Your task to perform on an android device: install app "Paramount+ | Peak Streaming" Image 0: 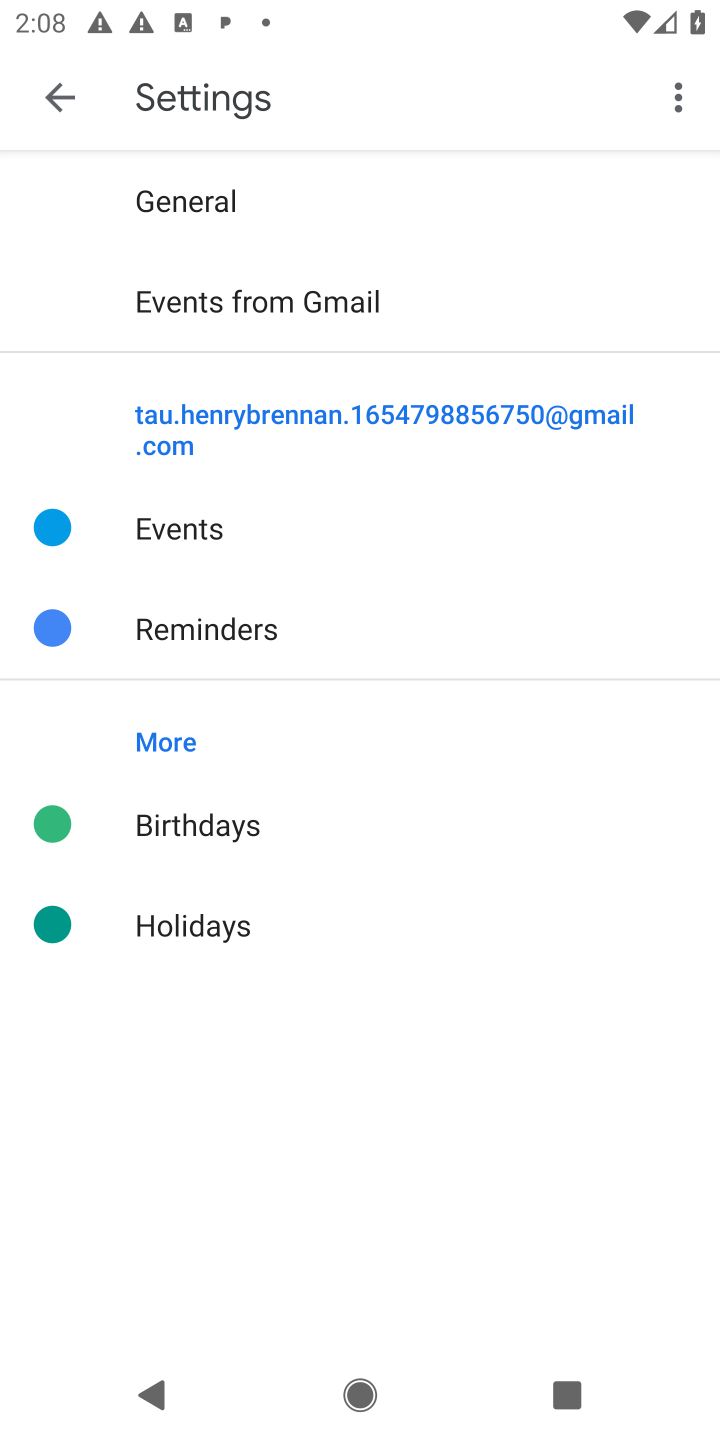
Step 0: press home button
Your task to perform on an android device: install app "Paramount+ | Peak Streaming" Image 1: 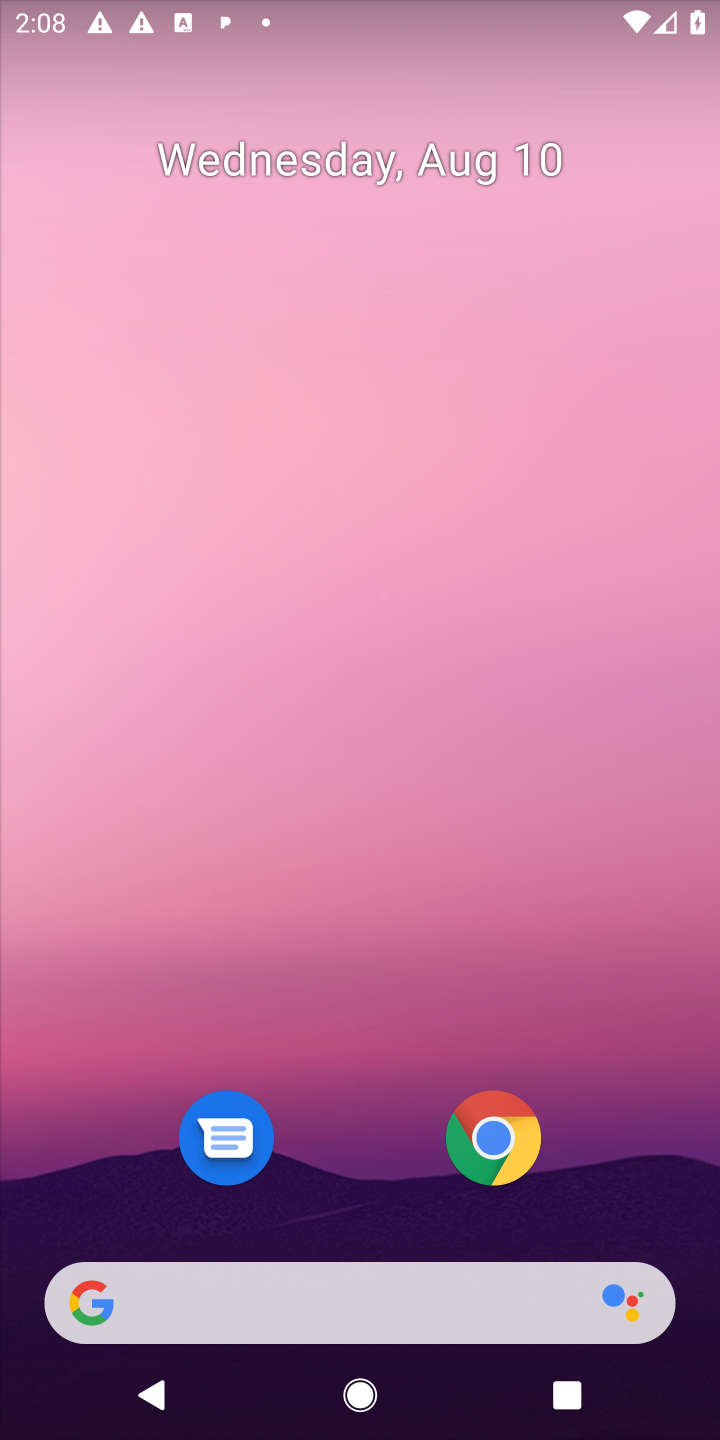
Step 1: drag from (601, 756) to (630, 112)
Your task to perform on an android device: install app "Paramount+ | Peak Streaming" Image 2: 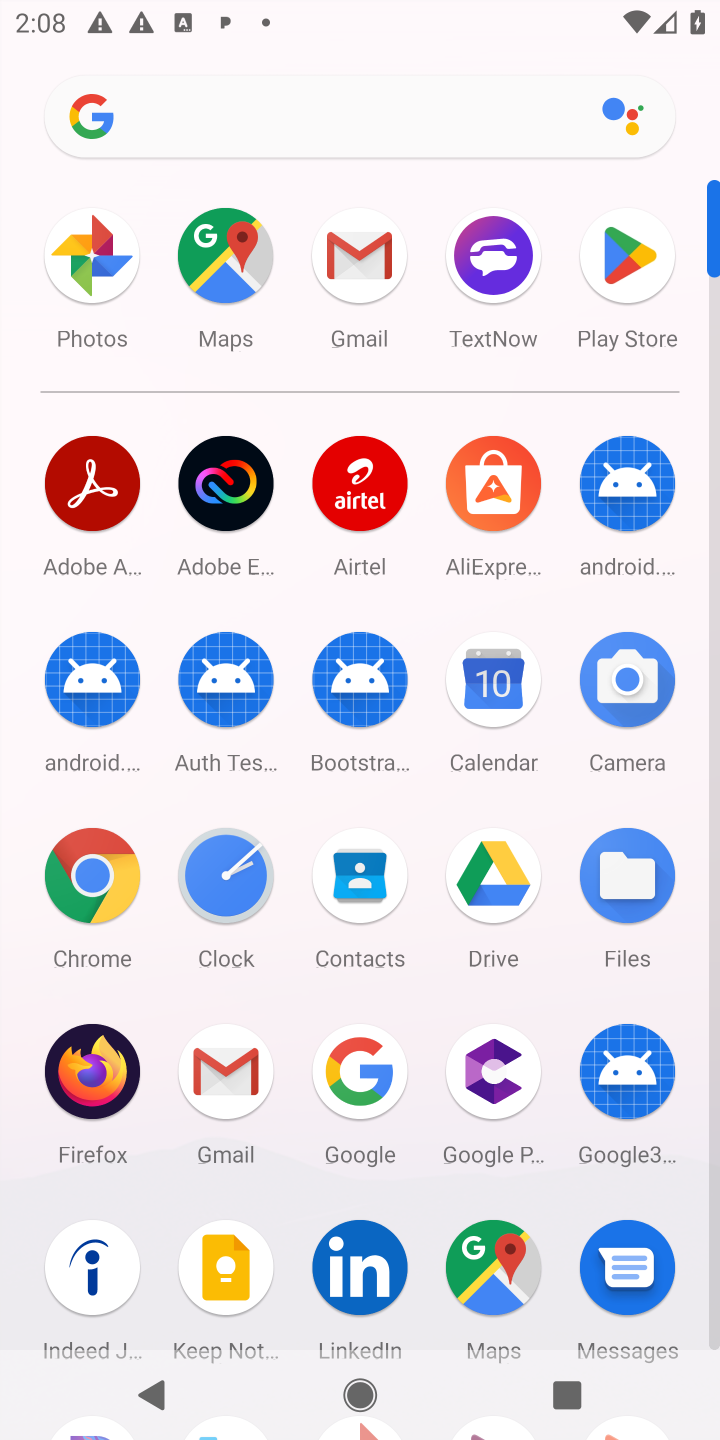
Step 2: click (616, 258)
Your task to perform on an android device: install app "Paramount+ | Peak Streaming" Image 3: 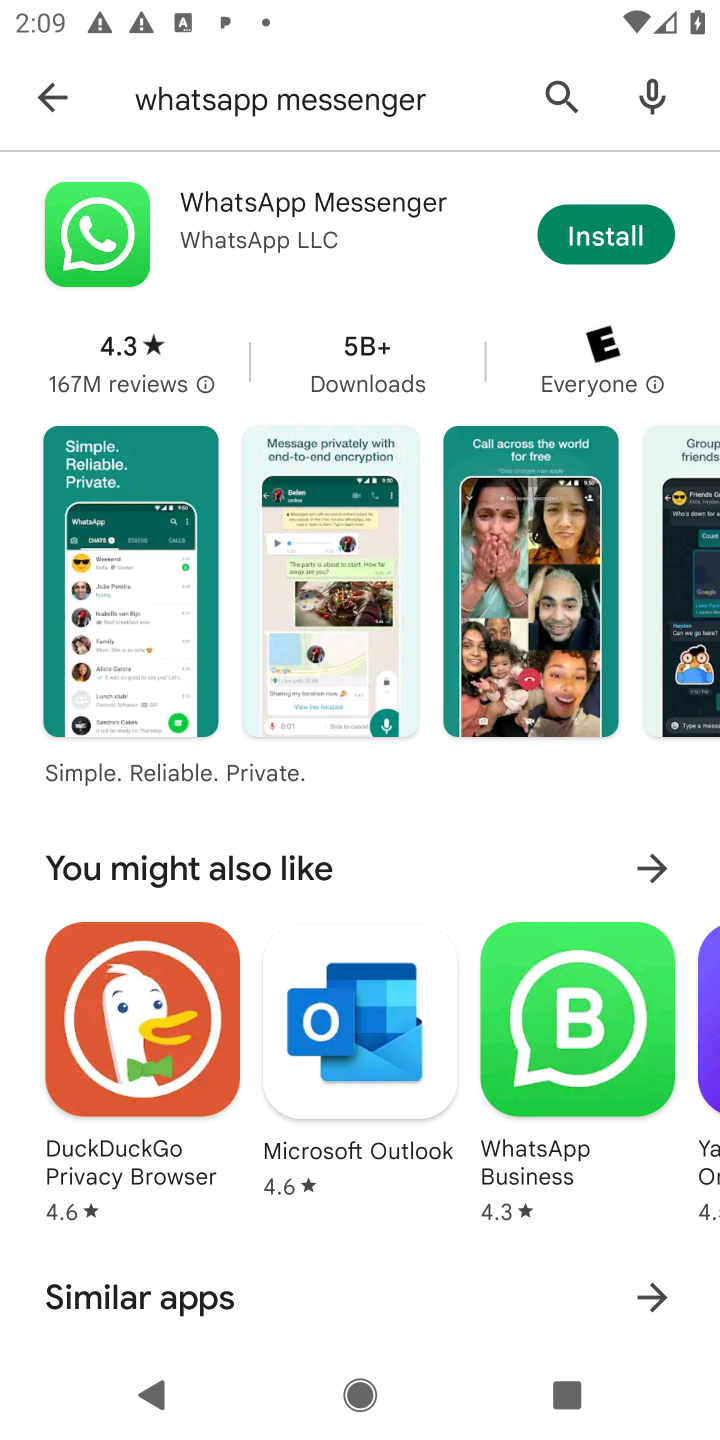
Step 3: click (559, 89)
Your task to perform on an android device: install app "Paramount+ | Peak Streaming" Image 4: 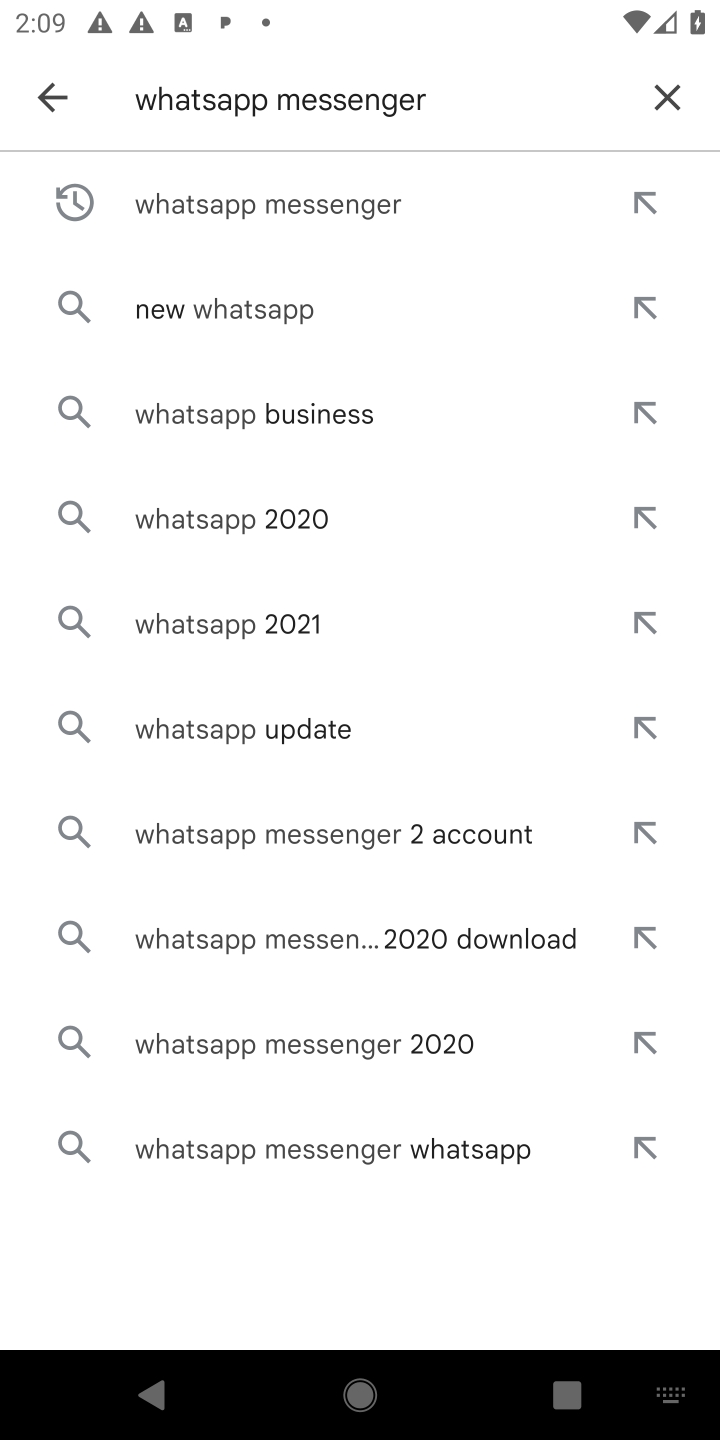
Step 4: click (669, 90)
Your task to perform on an android device: install app "Paramount+ | Peak Streaming" Image 5: 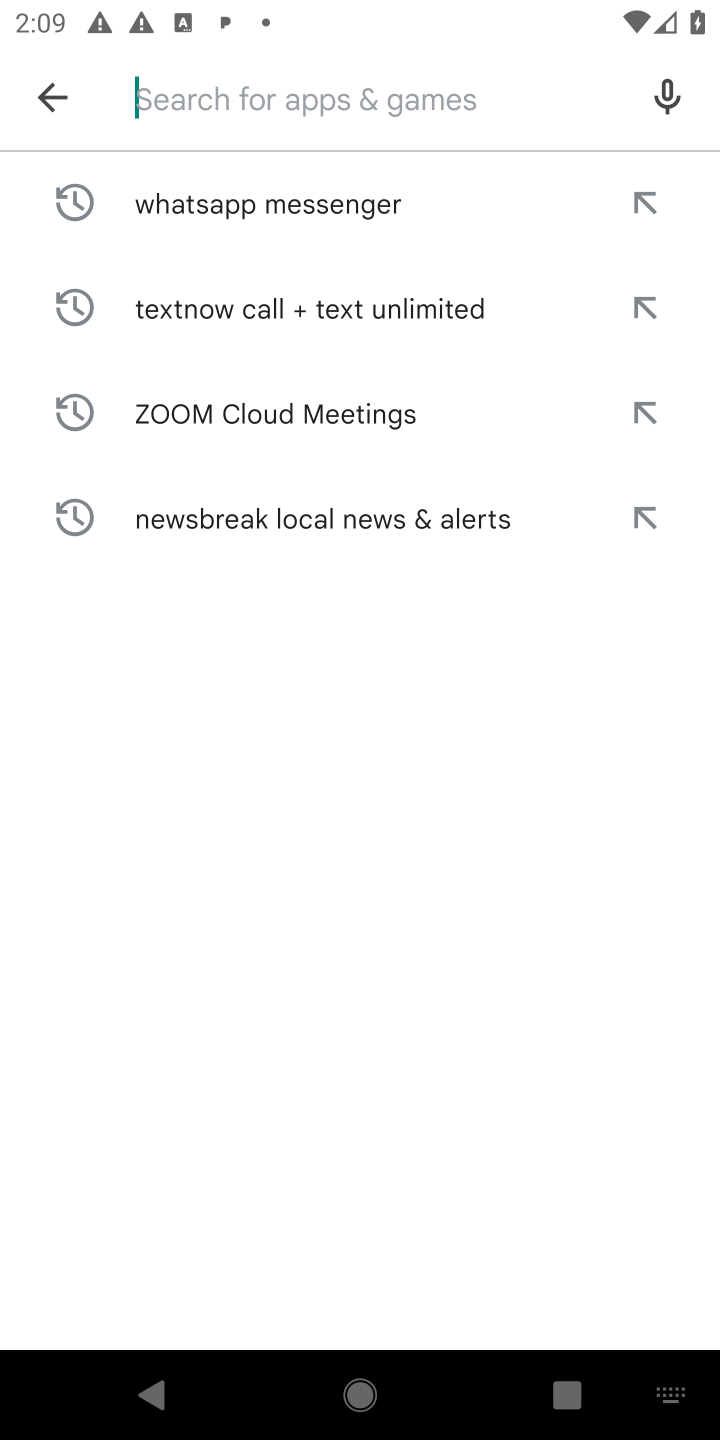
Step 5: press enter
Your task to perform on an android device: install app "Paramount+ | Peak Streaming" Image 6: 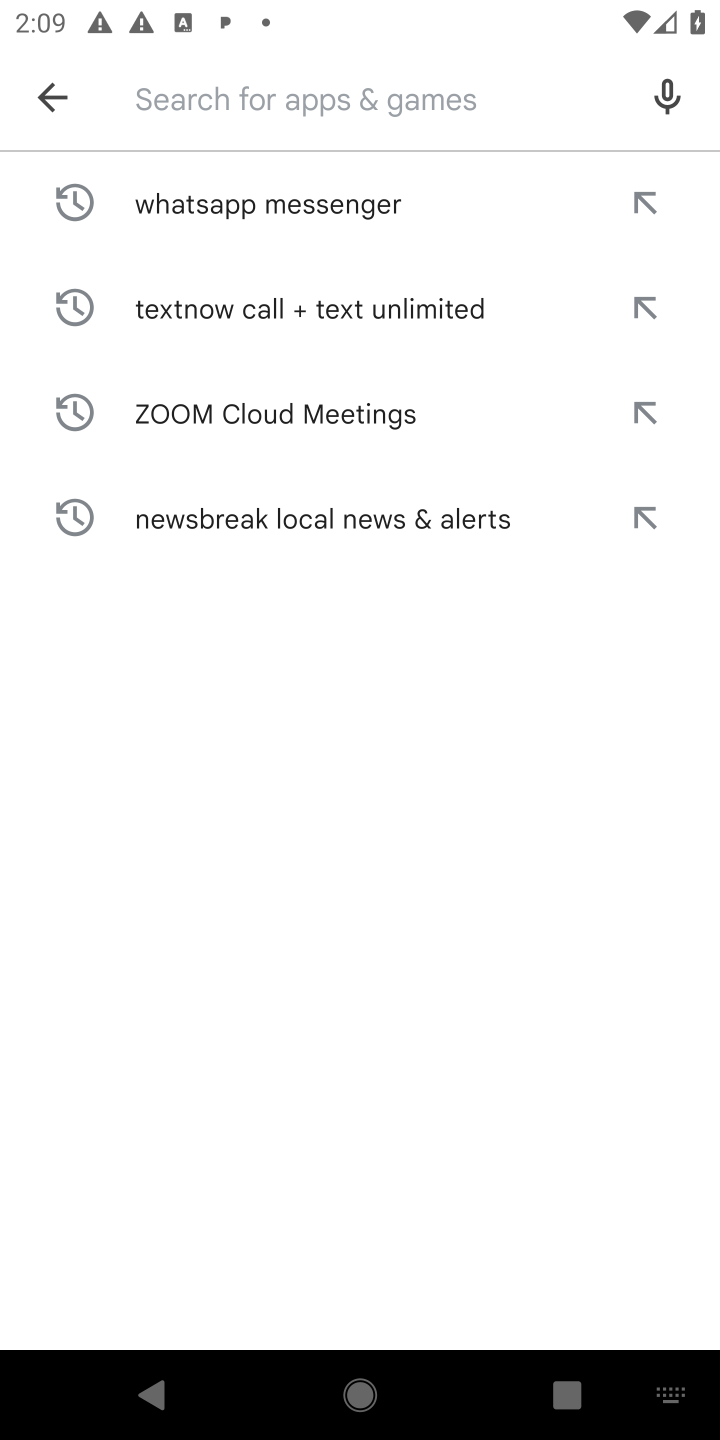
Step 6: type "Paramount+ | Peak Streaming"
Your task to perform on an android device: install app "Paramount+ | Peak Streaming" Image 7: 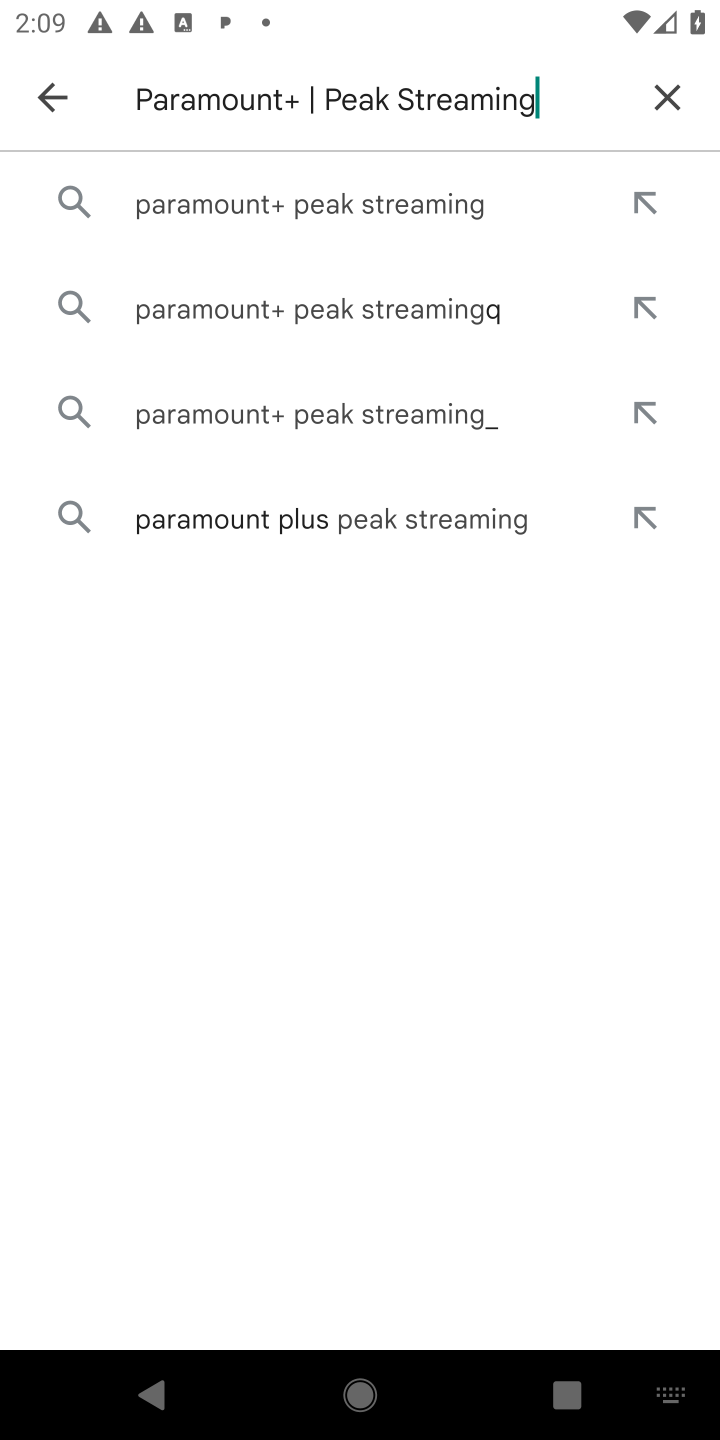
Step 7: click (438, 197)
Your task to perform on an android device: install app "Paramount+ | Peak Streaming" Image 8: 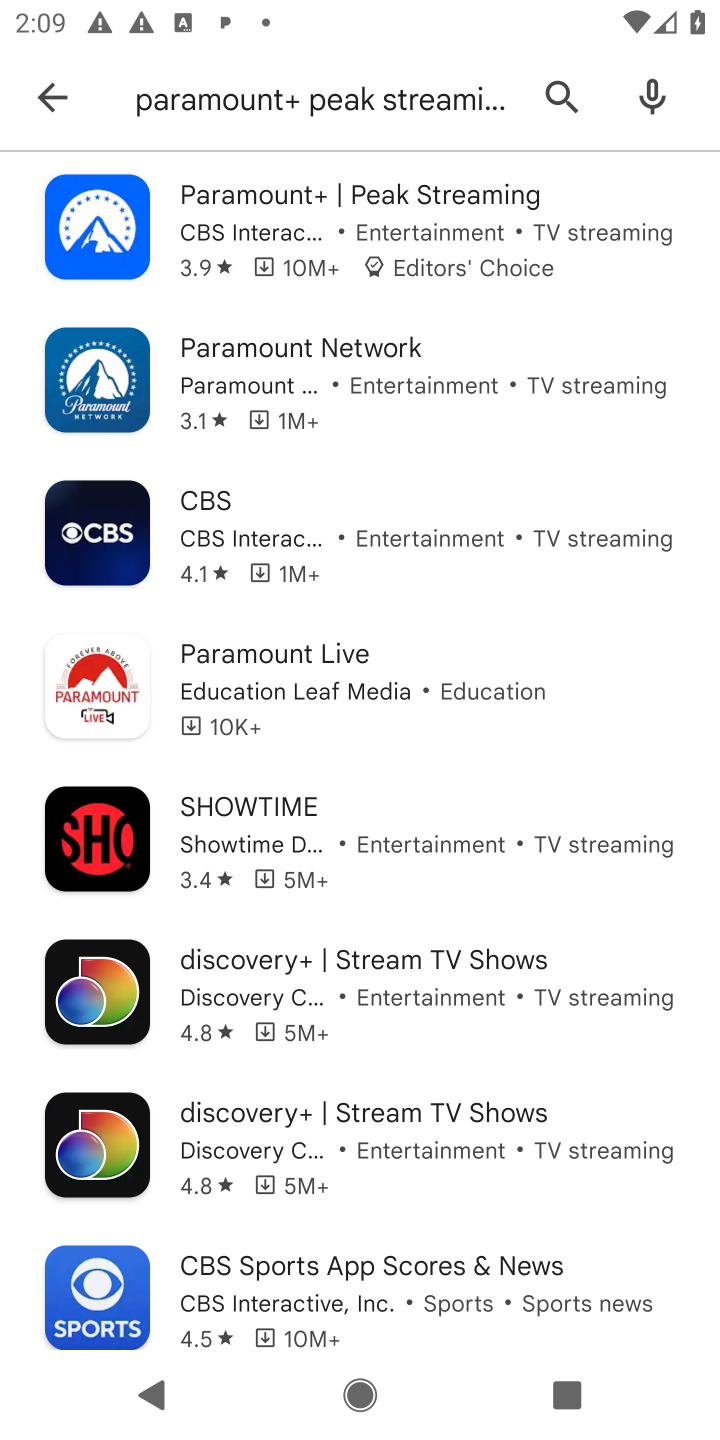
Step 8: task complete